Your task to perform on an android device: turn notification dots on Image 0: 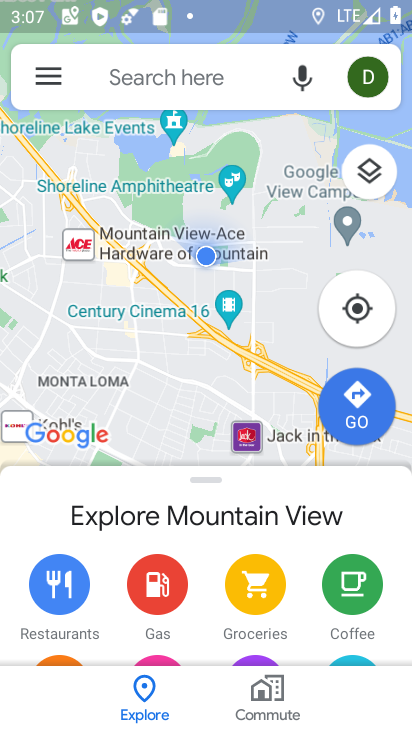
Step 0: press home button
Your task to perform on an android device: turn notification dots on Image 1: 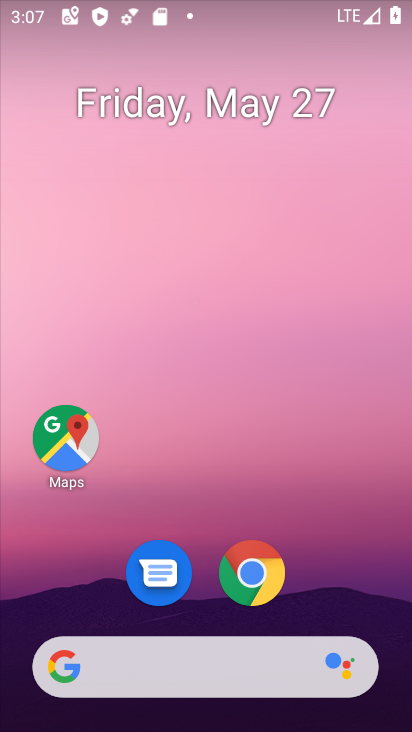
Step 1: drag from (235, 454) to (230, 24)
Your task to perform on an android device: turn notification dots on Image 2: 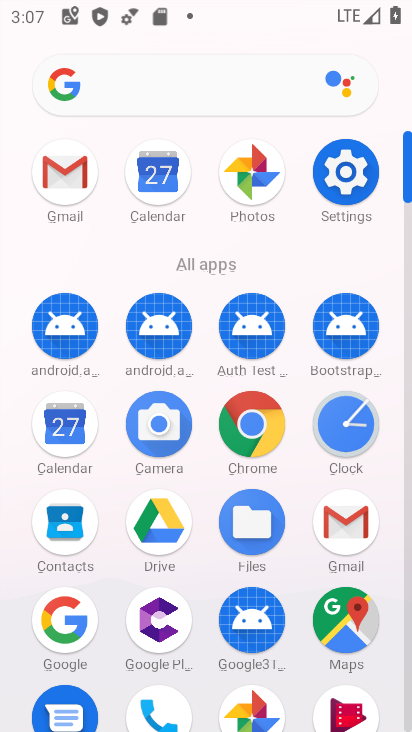
Step 2: click (345, 179)
Your task to perform on an android device: turn notification dots on Image 3: 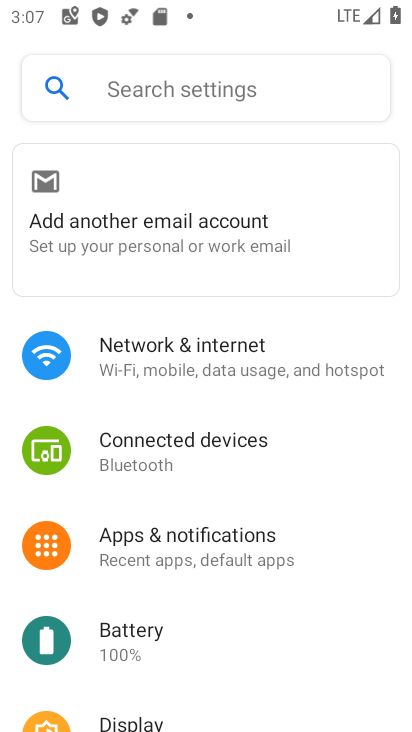
Step 3: click (266, 358)
Your task to perform on an android device: turn notification dots on Image 4: 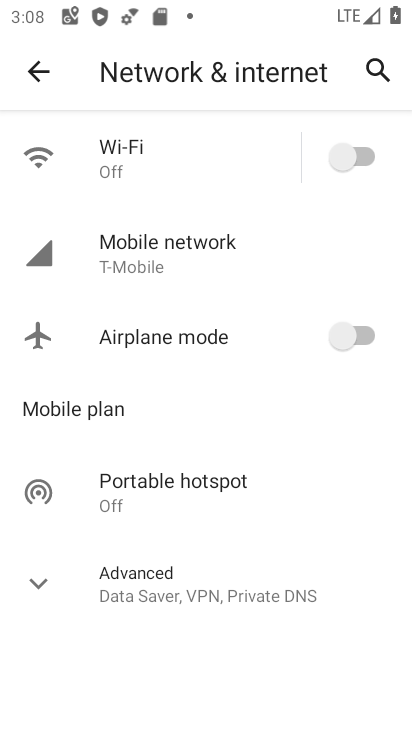
Step 4: click (36, 62)
Your task to perform on an android device: turn notification dots on Image 5: 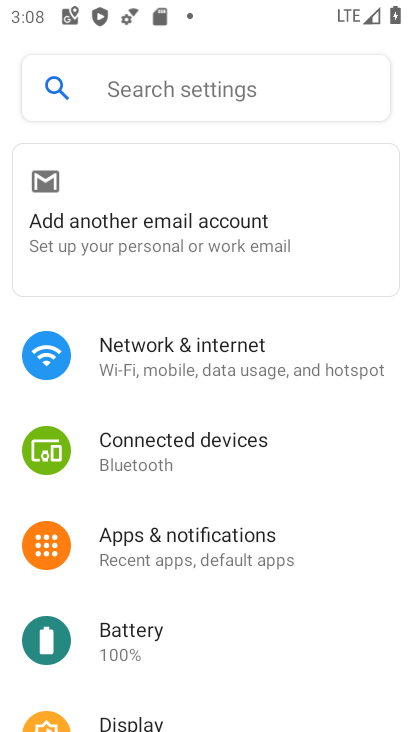
Step 5: click (225, 532)
Your task to perform on an android device: turn notification dots on Image 6: 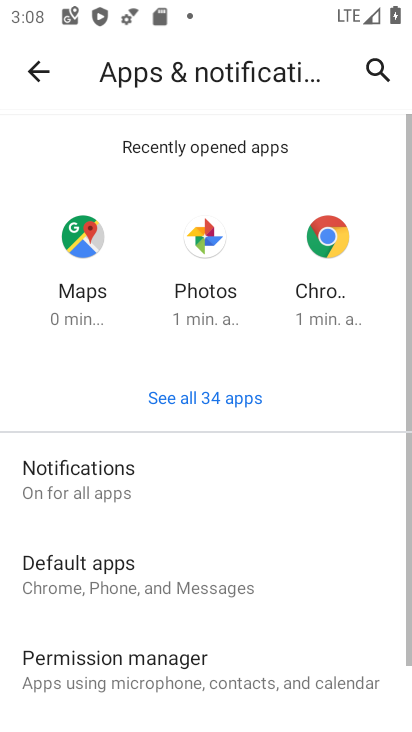
Step 6: click (199, 472)
Your task to perform on an android device: turn notification dots on Image 7: 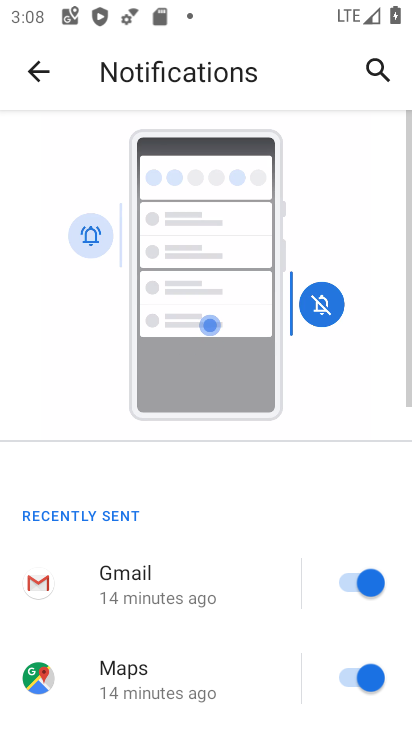
Step 7: drag from (209, 552) to (178, 139)
Your task to perform on an android device: turn notification dots on Image 8: 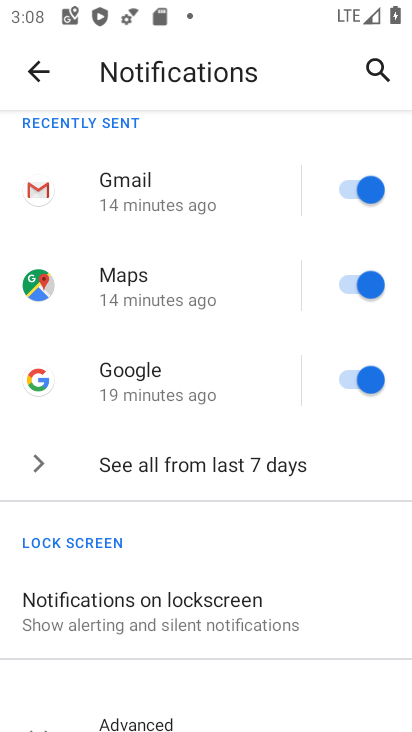
Step 8: drag from (230, 560) to (233, 300)
Your task to perform on an android device: turn notification dots on Image 9: 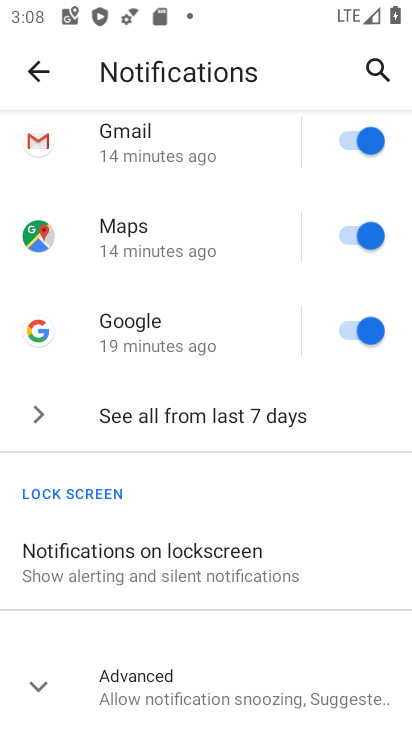
Step 9: click (37, 679)
Your task to perform on an android device: turn notification dots on Image 10: 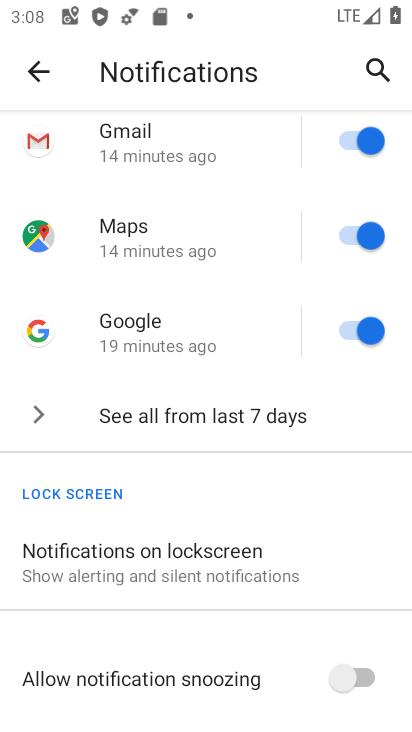
Step 10: task complete